Your task to perform on an android device: Open calendar and show me the fourth week of next month Image 0: 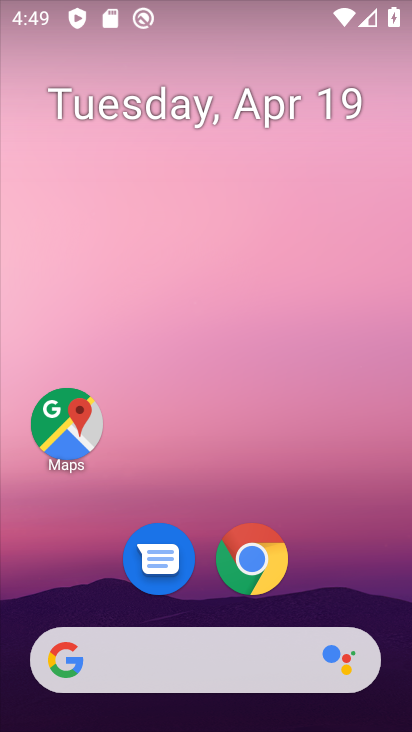
Step 0: drag from (318, 571) to (281, 129)
Your task to perform on an android device: Open calendar and show me the fourth week of next month Image 1: 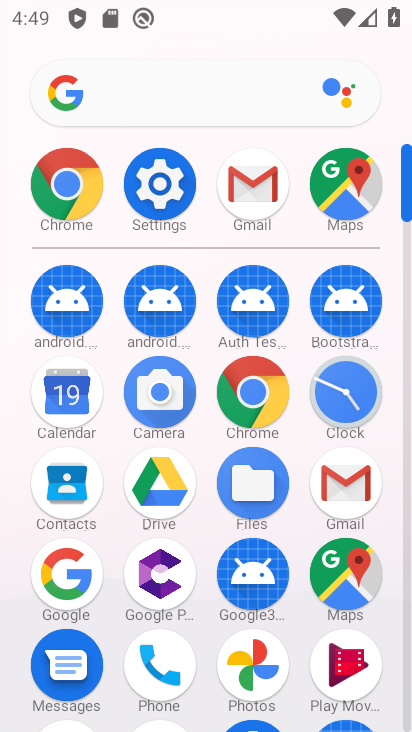
Step 1: click (61, 405)
Your task to perform on an android device: Open calendar and show me the fourth week of next month Image 2: 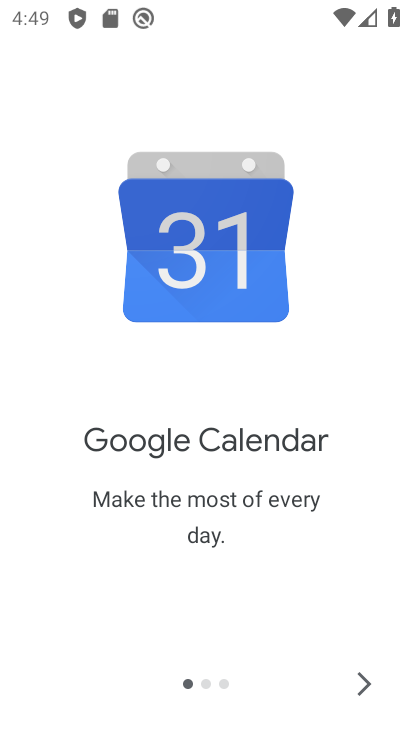
Step 2: click (353, 677)
Your task to perform on an android device: Open calendar and show me the fourth week of next month Image 3: 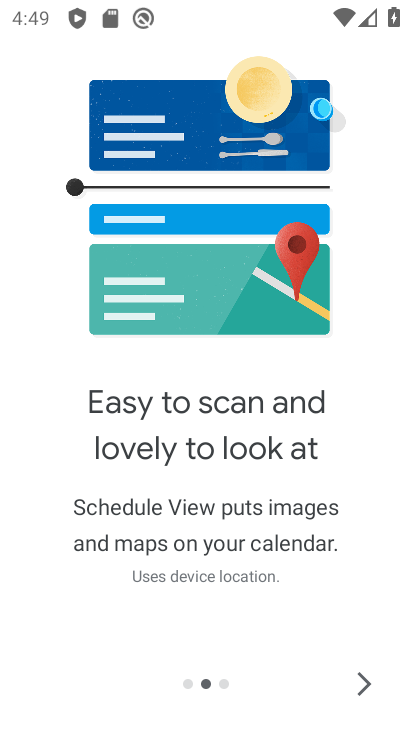
Step 3: click (353, 677)
Your task to perform on an android device: Open calendar and show me the fourth week of next month Image 4: 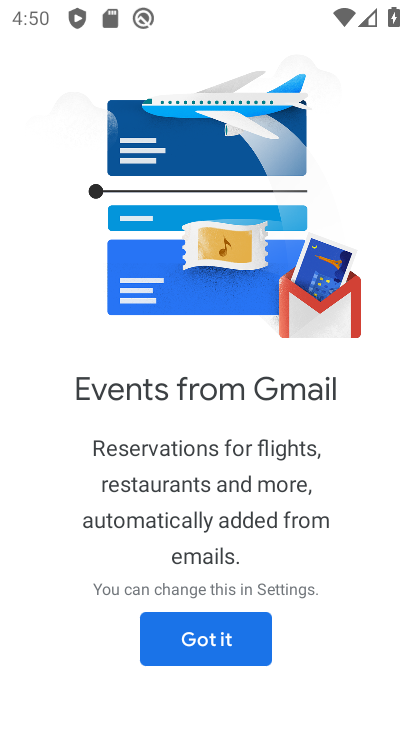
Step 4: click (353, 677)
Your task to perform on an android device: Open calendar and show me the fourth week of next month Image 5: 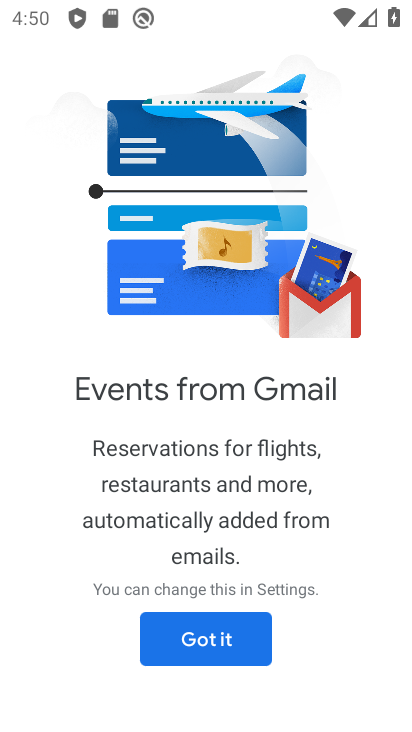
Step 5: click (175, 638)
Your task to perform on an android device: Open calendar and show me the fourth week of next month Image 6: 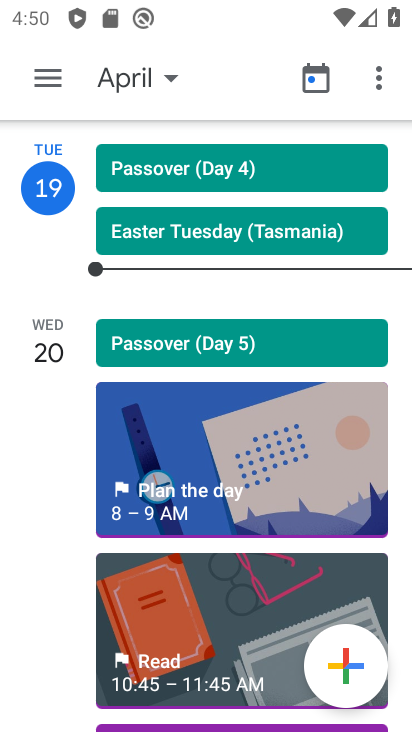
Step 6: click (113, 76)
Your task to perform on an android device: Open calendar and show me the fourth week of next month Image 7: 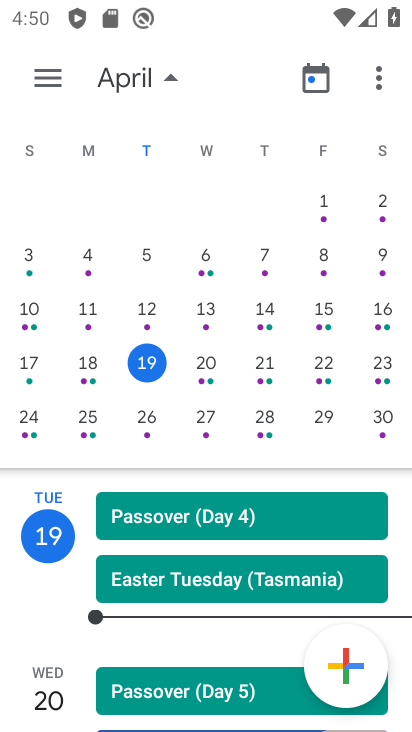
Step 7: drag from (352, 311) to (1, 306)
Your task to perform on an android device: Open calendar and show me the fourth week of next month Image 8: 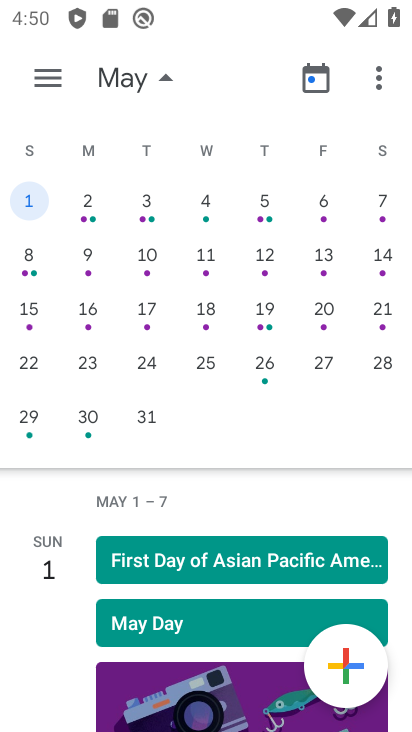
Step 8: click (211, 373)
Your task to perform on an android device: Open calendar and show me the fourth week of next month Image 9: 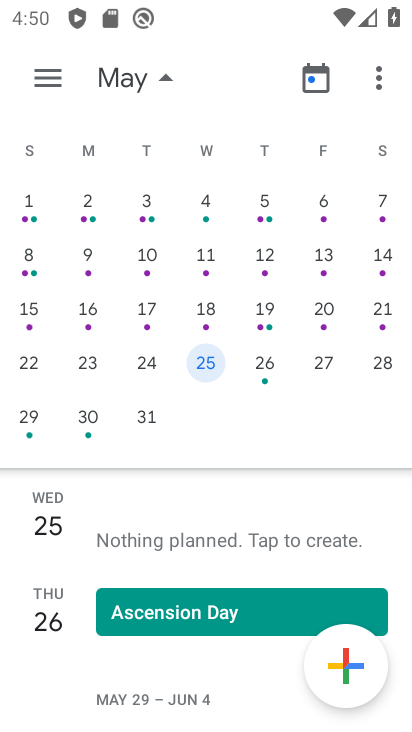
Step 9: task complete